Your task to perform on an android device: see creations saved in the google photos Image 0: 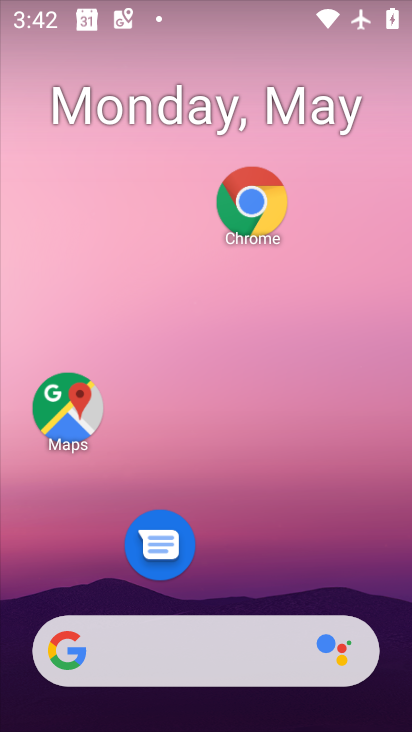
Step 0: drag from (213, 588) to (184, 166)
Your task to perform on an android device: see creations saved in the google photos Image 1: 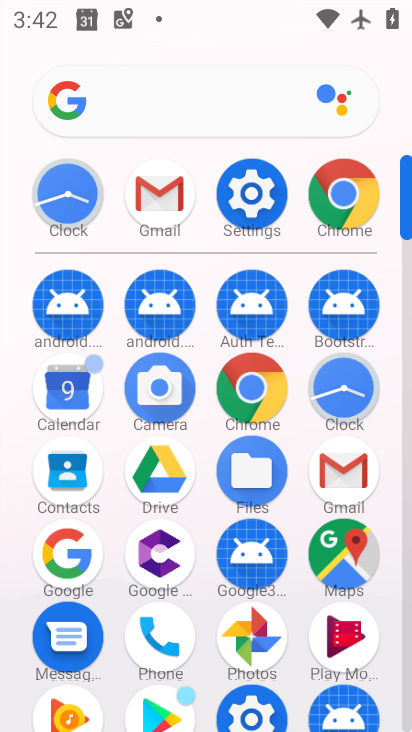
Step 1: drag from (211, 548) to (211, 252)
Your task to perform on an android device: see creations saved in the google photos Image 2: 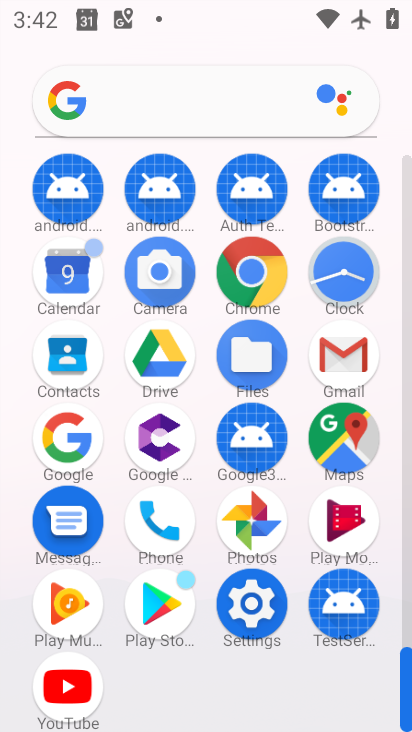
Step 2: click (239, 505)
Your task to perform on an android device: see creations saved in the google photos Image 3: 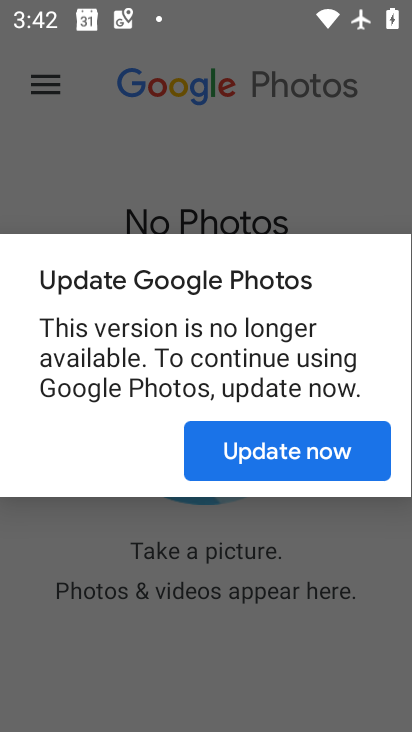
Step 3: click (237, 441)
Your task to perform on an android device: see creations saved in the google photos Image 4: 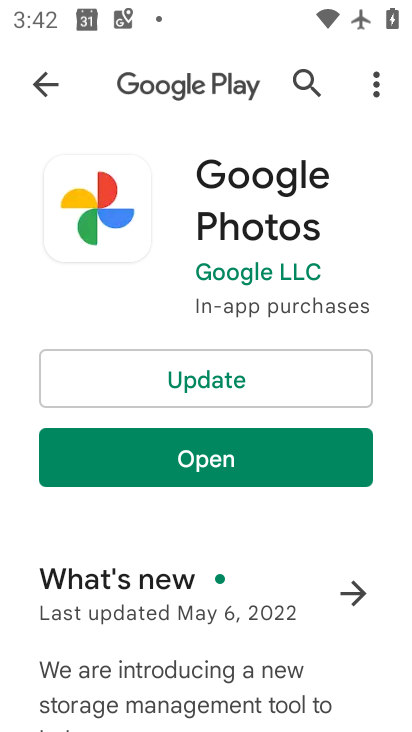
Step 4: click (227, 392)
Your task to perform on an android device: see creations saved in the google photos Image 5: 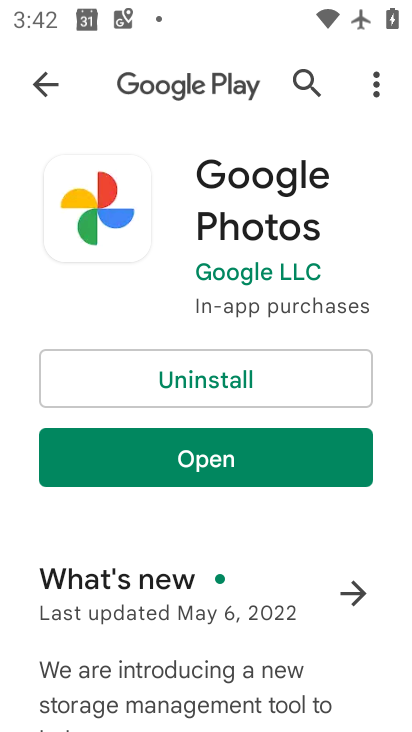
Step 5: click (207, 456)
Your task to perform on an android device: see creations saved in the google photos Image 6: 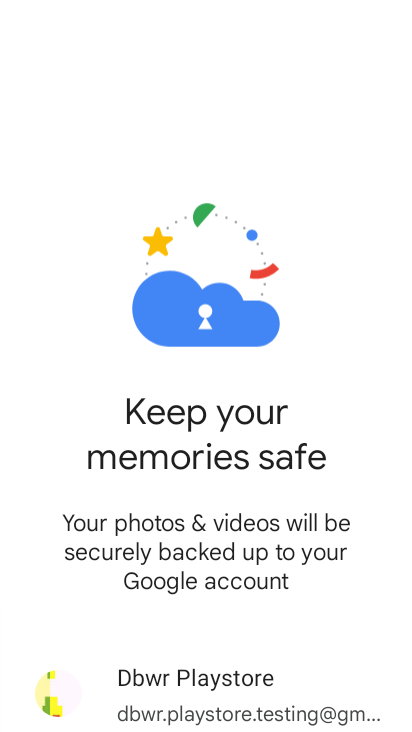
Step 6: drag from (212, 574) to (218, 347)
Your task to perform on an android device: see creations saved in the google photos Image 7: 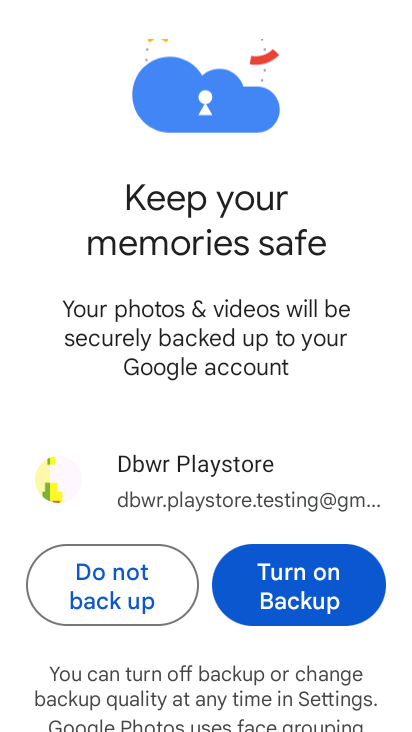
Step 7: click (157, 586)
Your task to perform on an android device: see creations saved in the google photos Image 8: 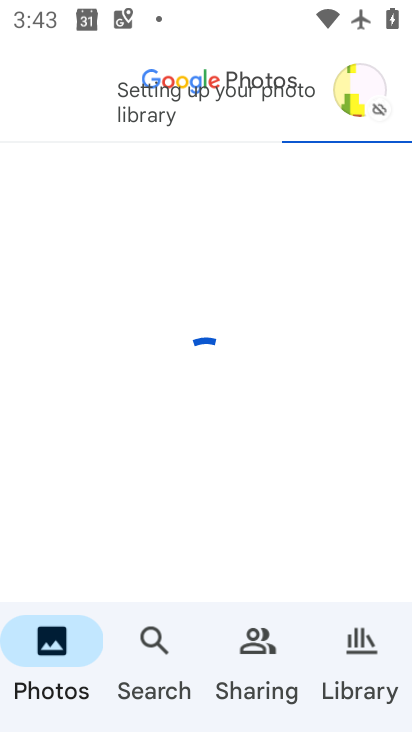
Step 8: click (241, 90)
Your task to perform on an android device: see creations saved in the google photos Image 9: 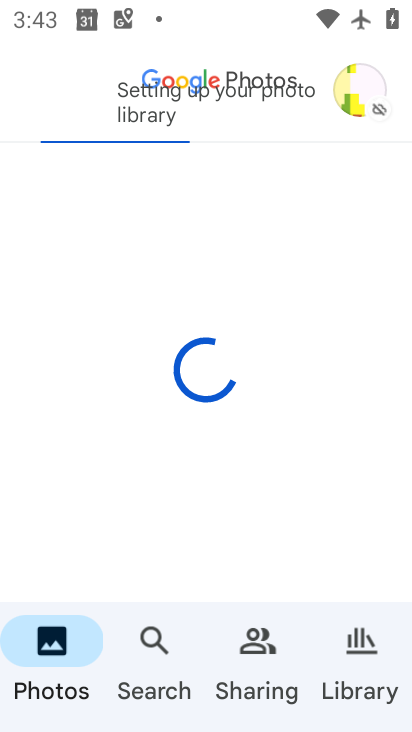
Step 9: task complete